Your task to perform on an android device: Go to Google Image 0: 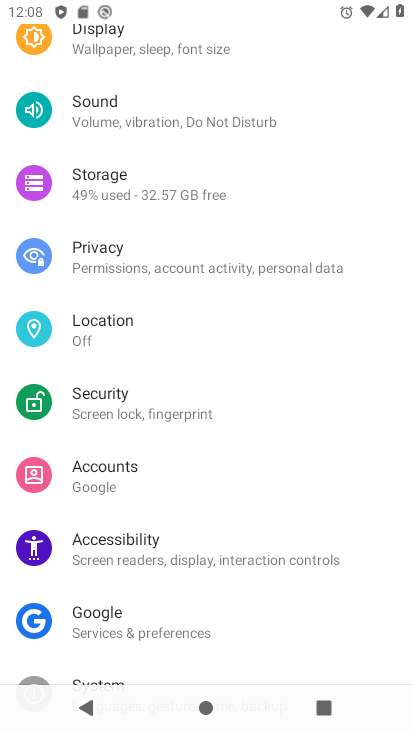
Step 0: press home button
Your task to perform on an android device: Go to Google Image 1: 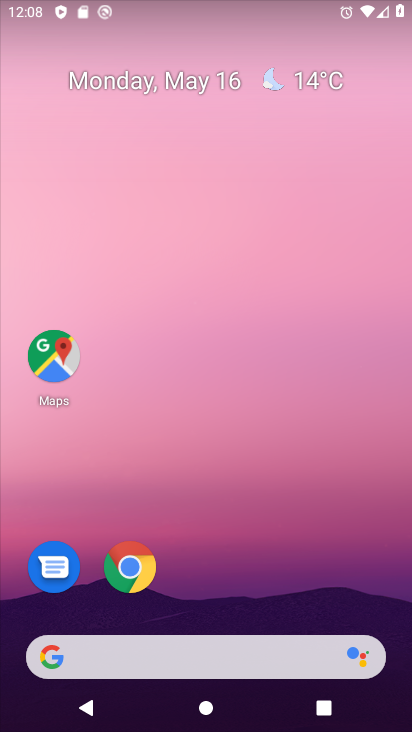
Step 1: drag from (229, 604) to (289, 168)
Your task to perform on an android device: Go to Google Image 2: 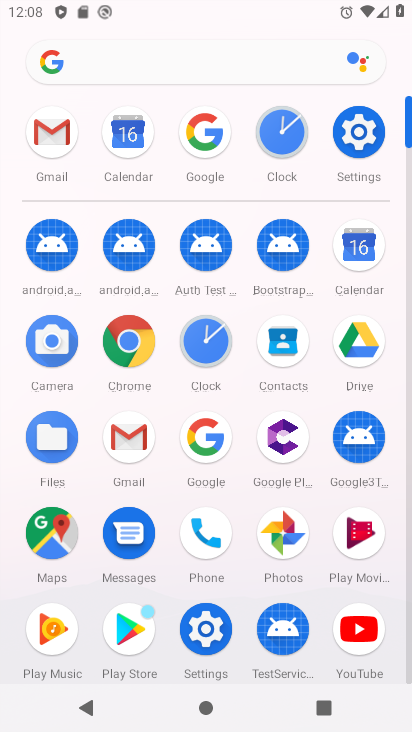
Step 2: click (209, 439)
Your task to perform on an android device: Go to Google Image 3: 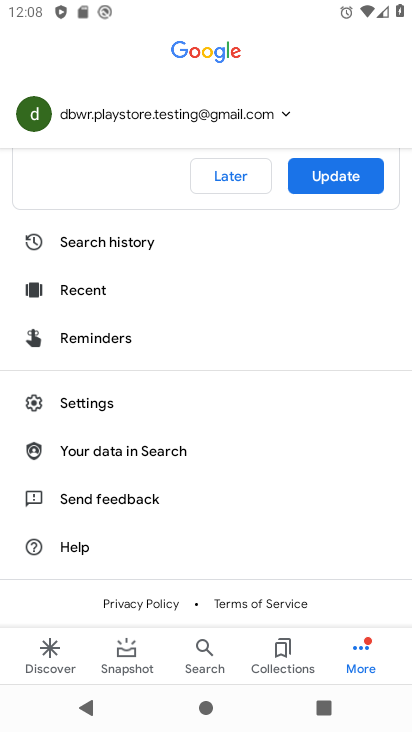
Step 3: click (214, 663)
Your task to perform on an android device: Go to Google Image 4: 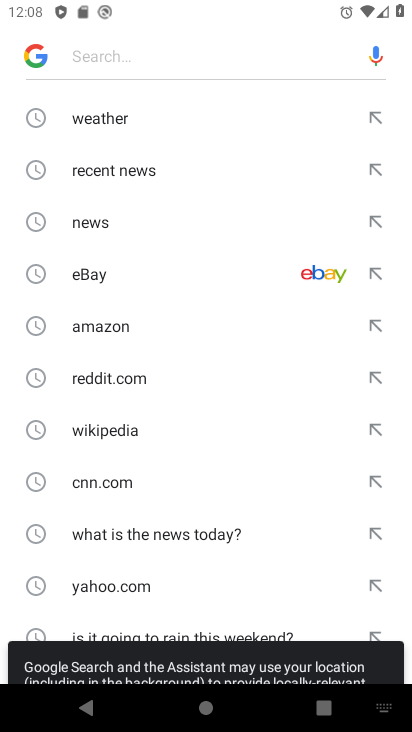
Step 4: task complete